Your task to perform on an android device: check data usage Image 0: 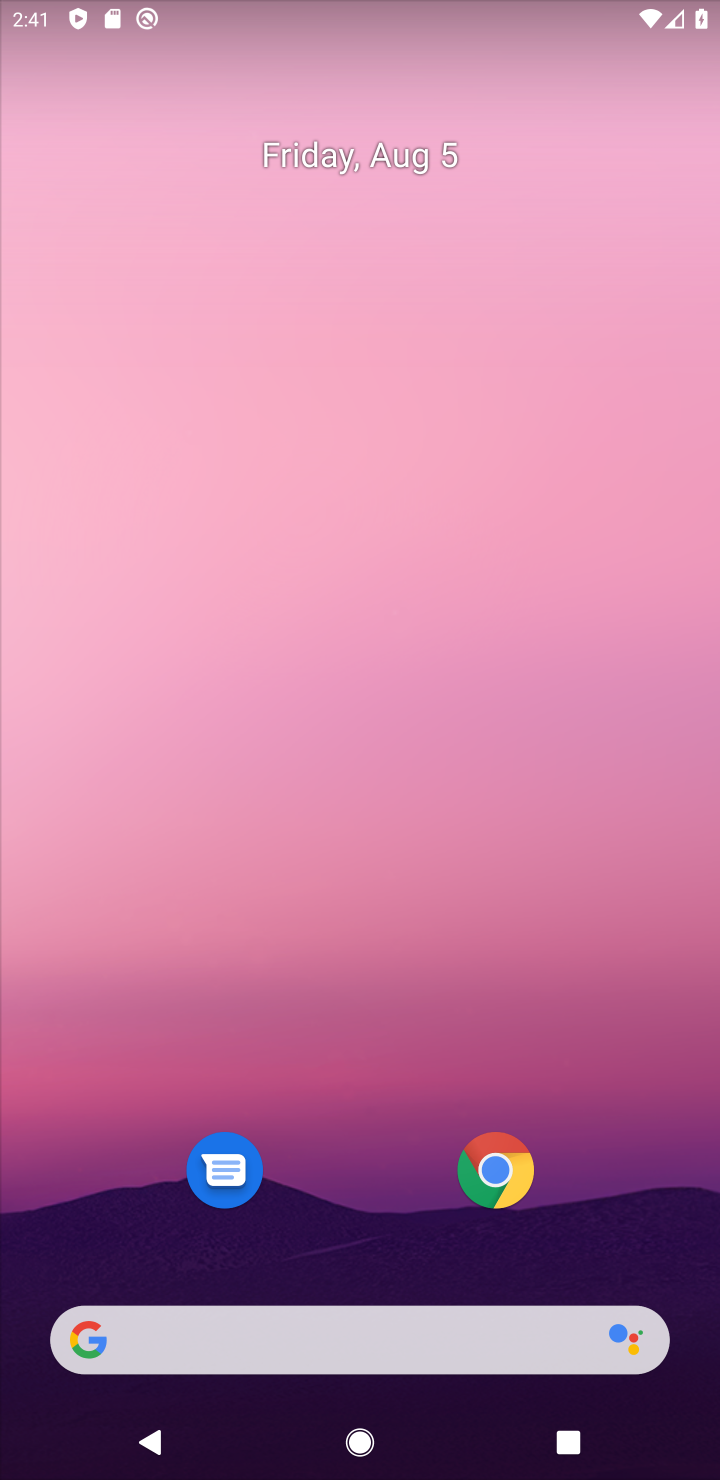
Step 0: drag from (417, 967) to (352, 668)
Your task to perform on an android device: check data usage Image 1: 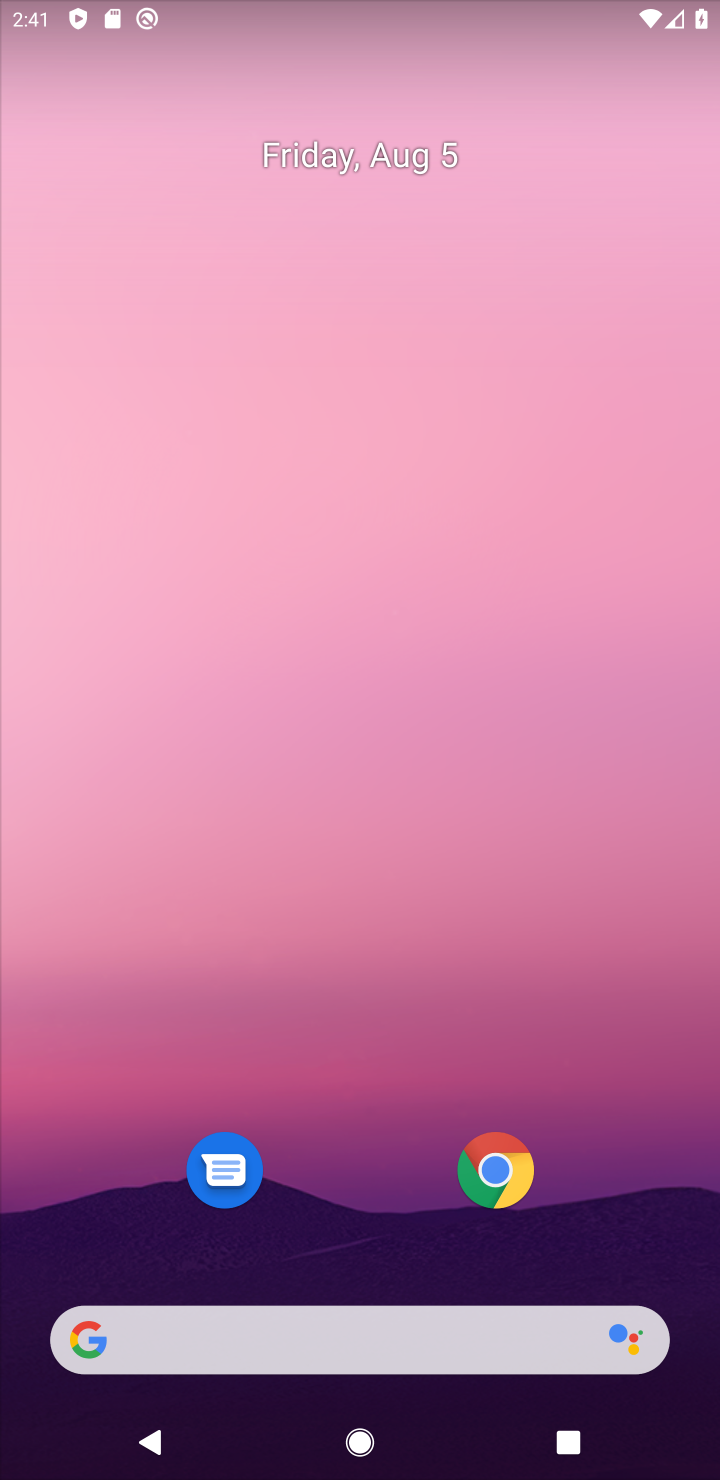
Step 1: drag from (342, 975) to (193, 281)
Your task to perform on an android device: check data usage Image 2: 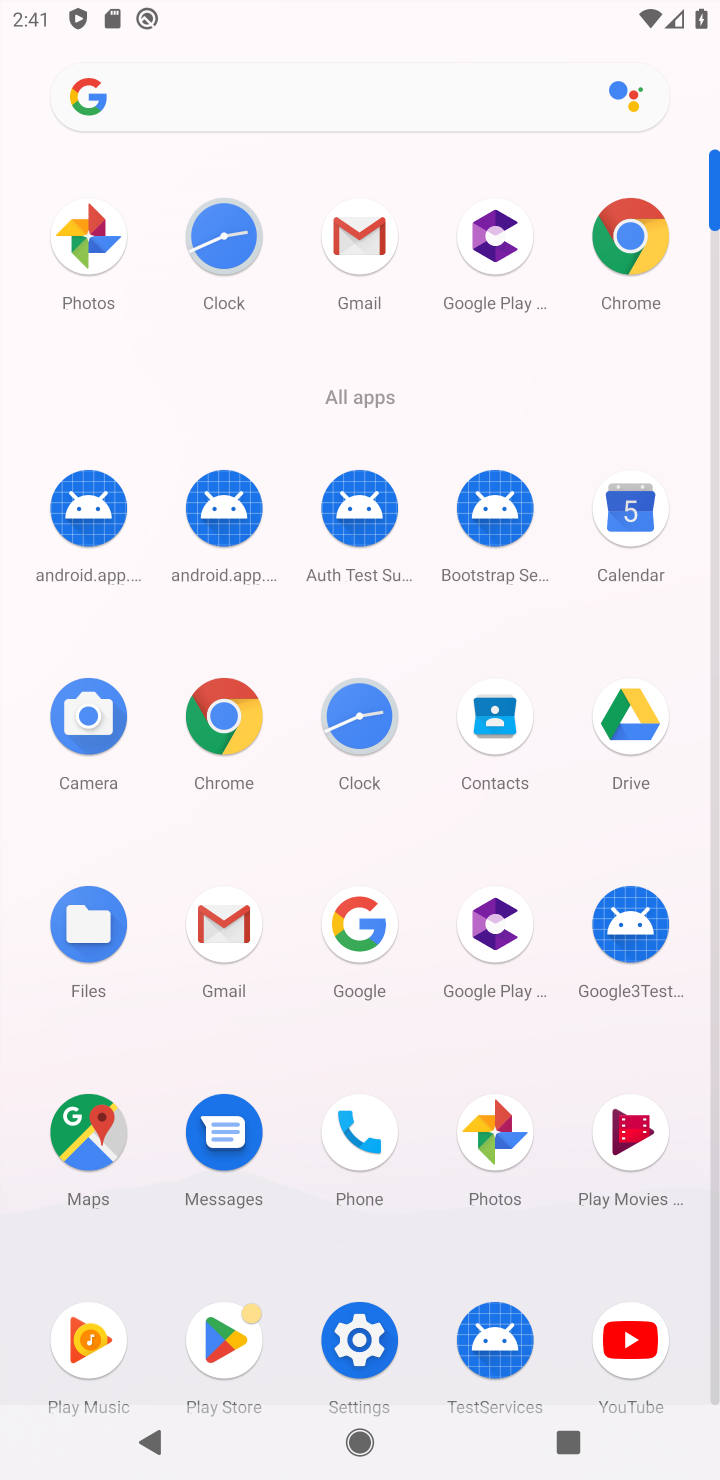
Step 2: click (354, 1332)
Your task to perform on an android device: check data usage Image 3: 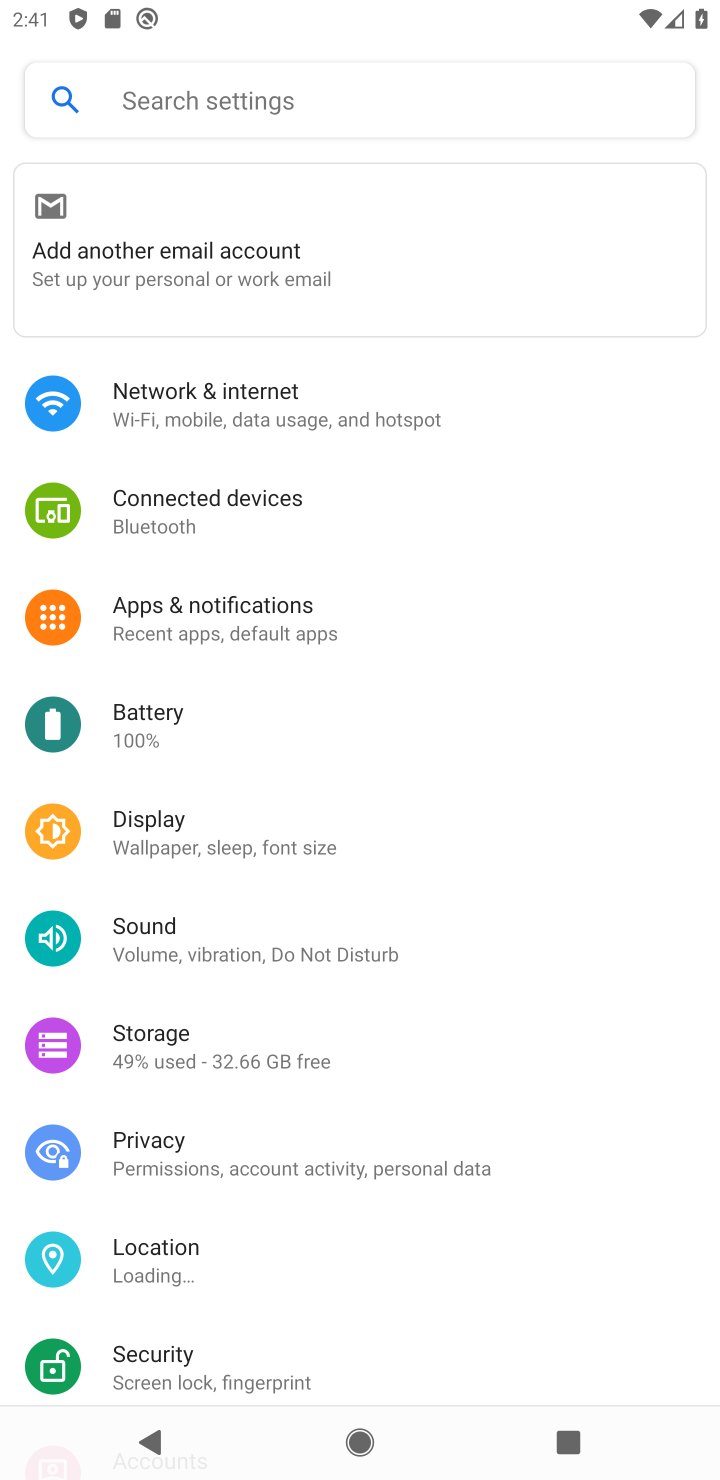
Step 3: task complete